Your task to perform on an android device: Open Yahoo.com Image 0: 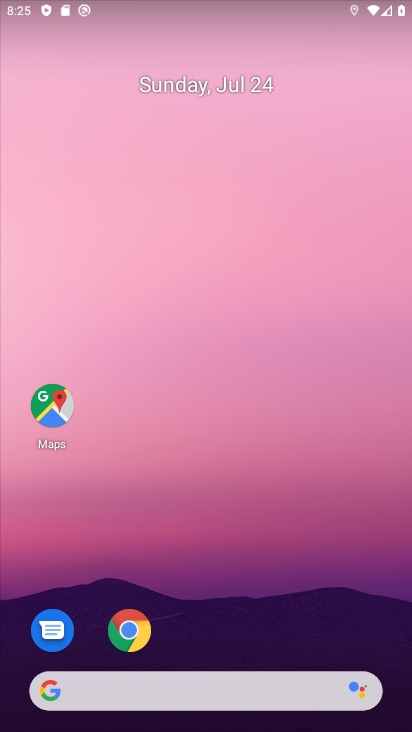
Step 0: click (137, 629)
Your task to perform on an android device: Open Yahoo.com Image 1: 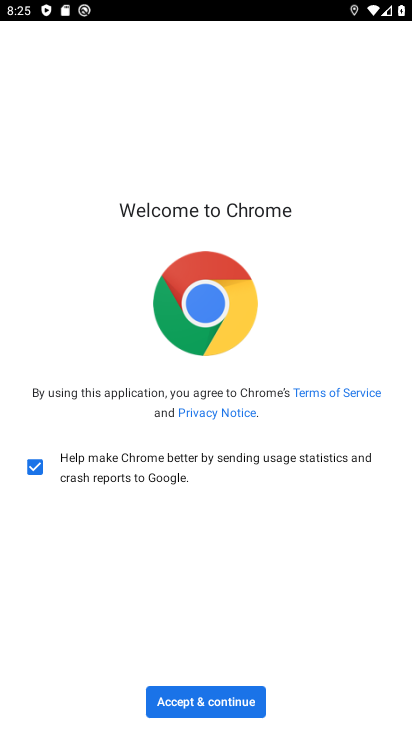
Step 1: click (219, 717)
Your task to perform on an android device: Open Yahoo.com Image 2: 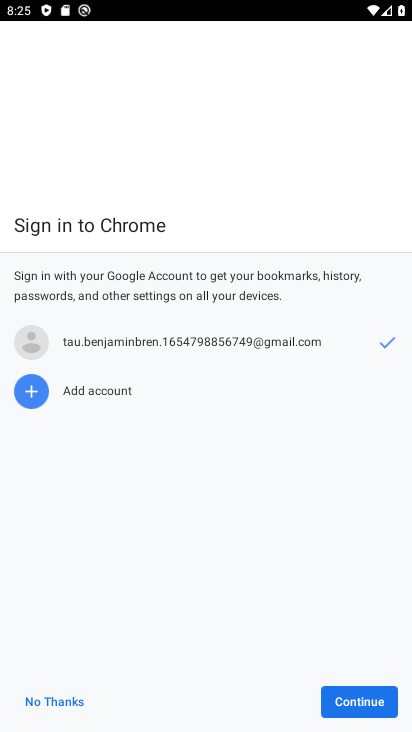
Step 2: click (351, 705)
Your task to perform on an android device: Open Yahoo.com Image 3: 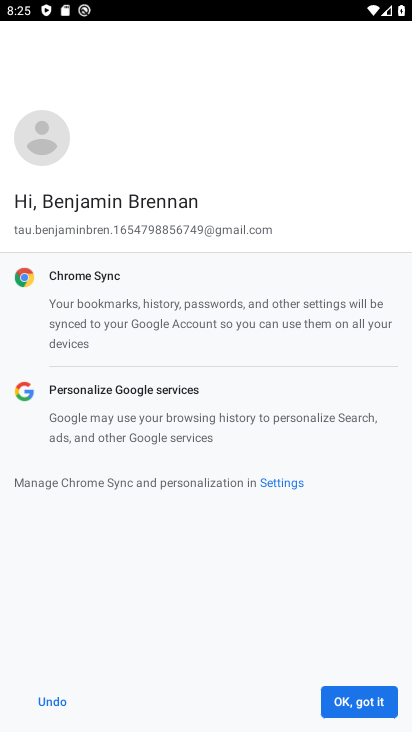
Step 3: click (351, 705)
Your task to perform on an android device: Open Yahoo.com Image 4: 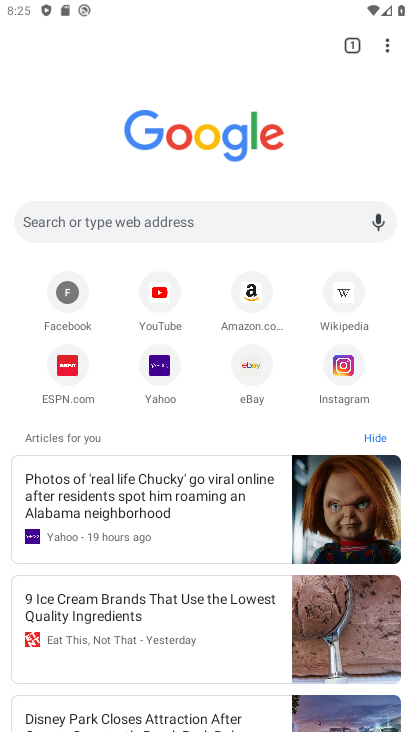
Step 4: click (169, 377)
Your task to perform on an android device: Open Yahoo.com Image 5: 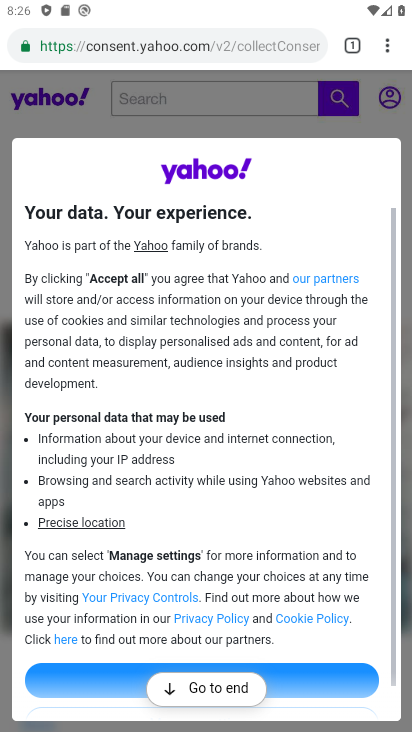
Step 5: task complete